Your task to perform on an android device: check out phone information Image 0: 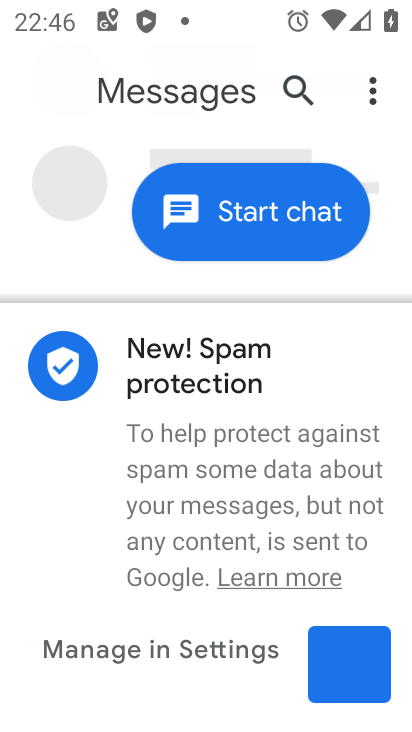
Step 0: press home button
Your task to perform on an android device: check out phone information Image 1: 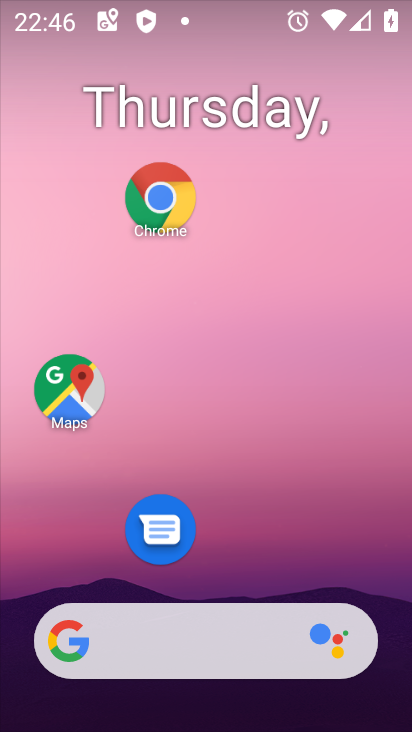
Step 1: drag from (267, 547) to (265, 92)
Your task to perform on an android device: check out phone information Image 2: 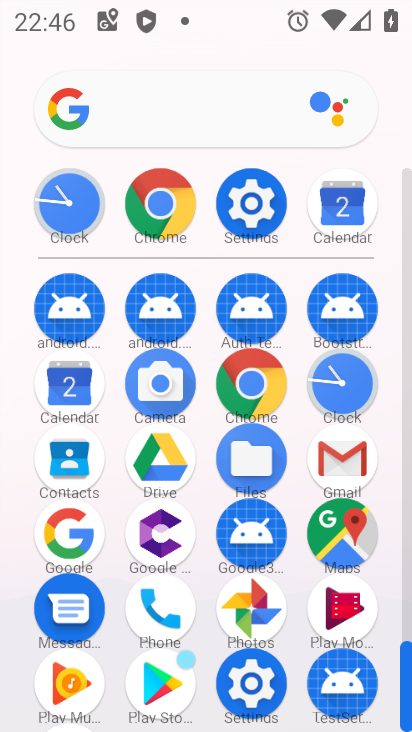
Step 2: click (251, 204)
Your task to perform on an android device: check out phone information Image 3: 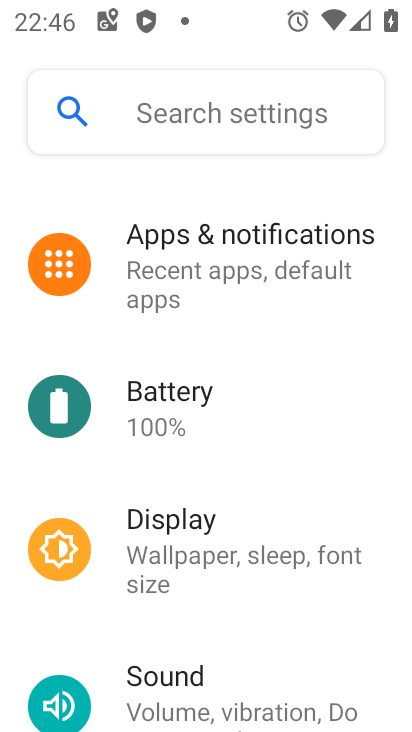
Step 3: drag from (224, 599) to (217, 253)
Your task to perform on an android device: check out phone information Image 4: 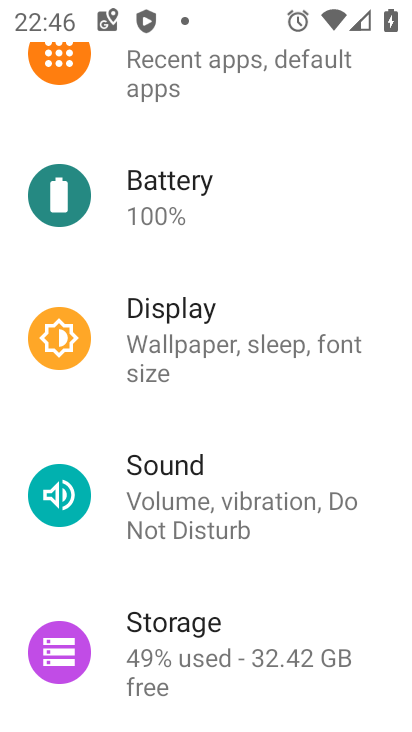
Step 4: drag from (237, 565) to (235, 130)
Your task to perform on an android device: check out phone information Image 5: 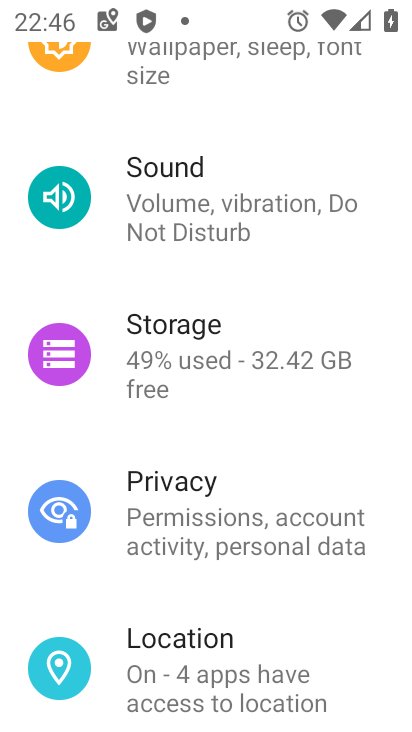
Step 5: drag from (213, 577) to (213, 197)
Your task to perform on an android device: check out phone information Image 6: 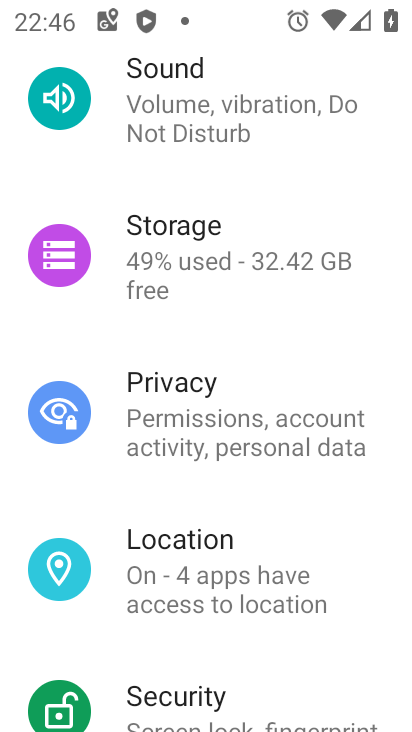
Step 6: drag from (174, 627) to (174, 191)
Your task to perform on an android device: check out phone information Image 7: 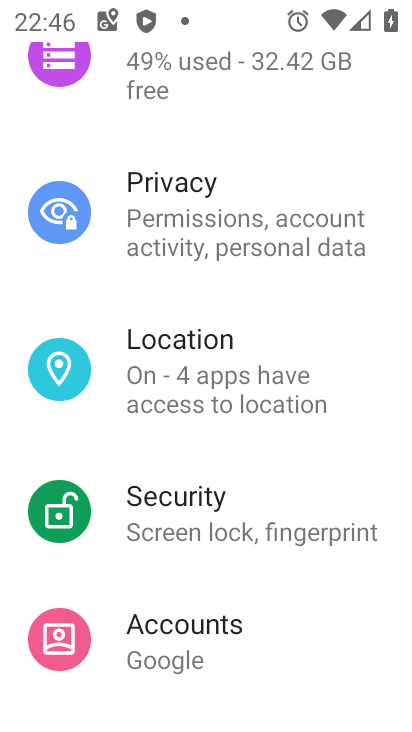
Step 7: drag from (199, 565) to (194, 162)
Your task to perform on an android device: check out phone information Image 8: 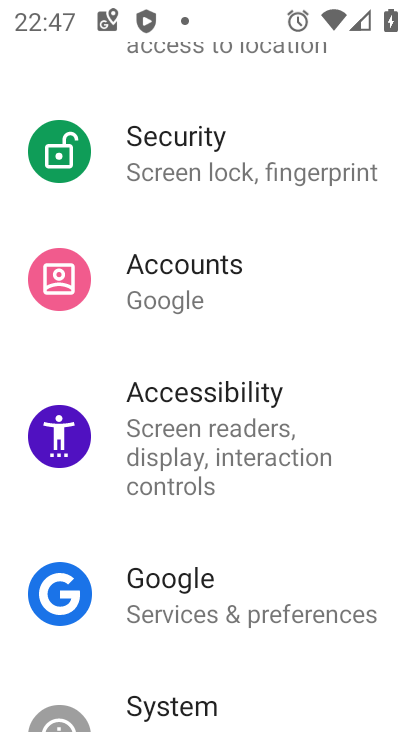
Step 8: drag from (196, 519) to (194, 201)
Your task to perform on an android device: check out phone information Image 9: 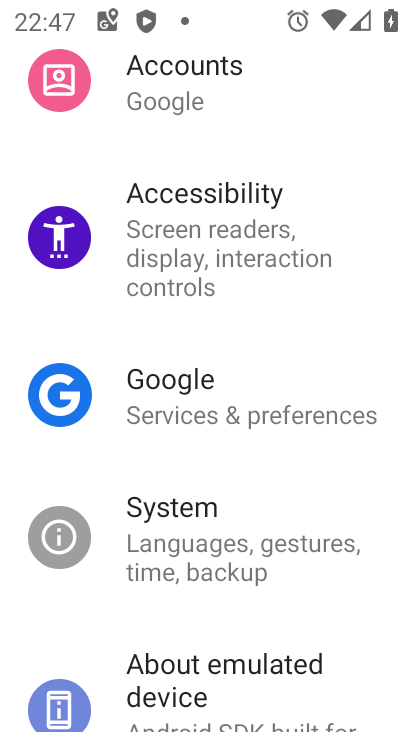
Step 9: drag from (219, 460) to (214, 134)
Your task to perform on an android device: check out phone information Image 10: 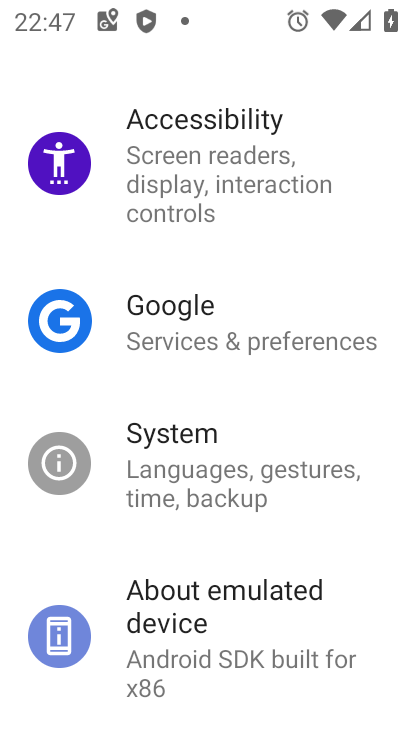
Step 10: click (166, 589)
Your task to perform on an android device: check out phone information Image 11: 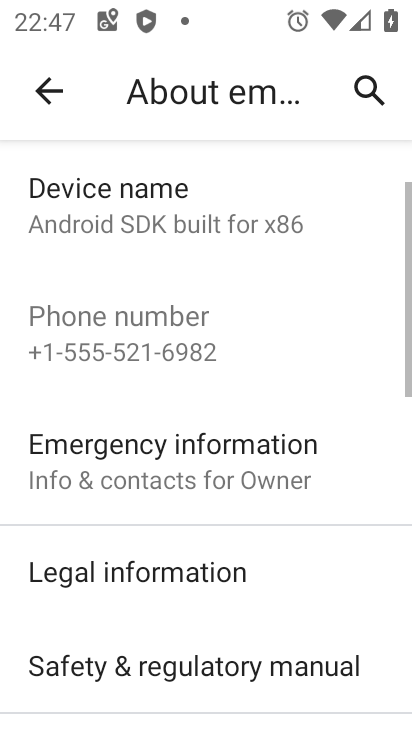
Step 11: task complete